Your task to perform on an android device: turn on the 12-hour format for clock Image 0: 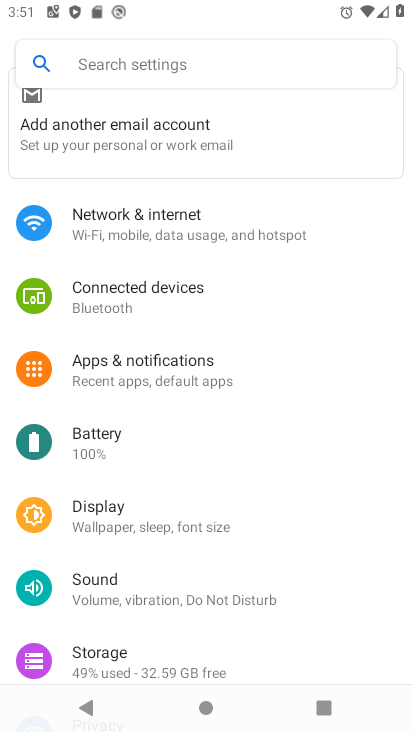
Step 0: press home button
Your task to perform on an android device: turn on the 12-hour format for clock Image 1: 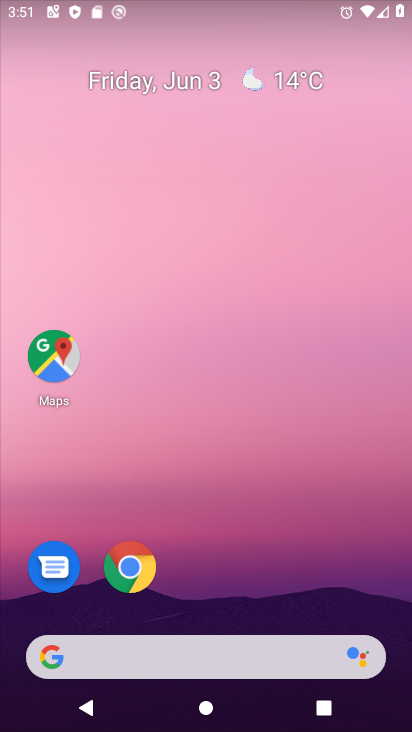
Step 1: drag from (260, 689) to (268, 197)
Your task to perform on an android device: turn on the 12-hour format for clock Image 2: 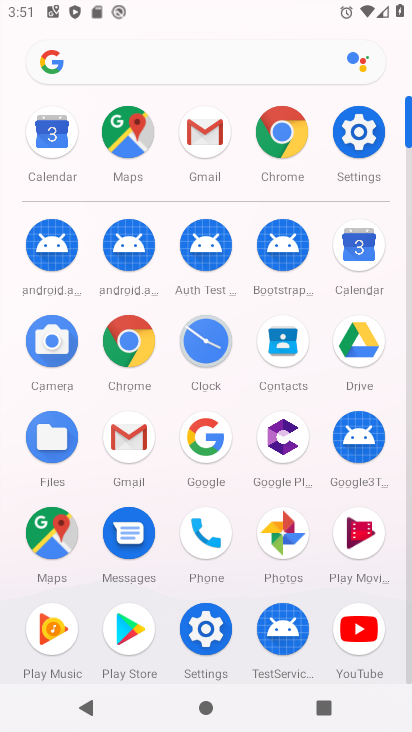
Step 2: click (208, 352)
Your task to perform on an android device: turn on the 12-hour format for clock Image 3: 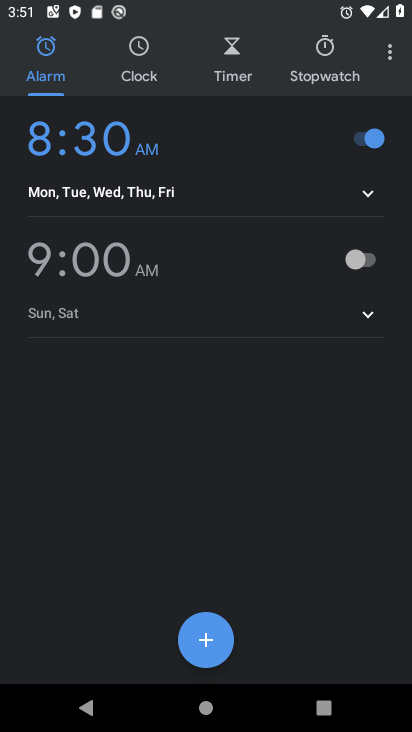
Step 3: click (381, 56)
Your task to perform on an android device: turn on the 12-hour format for clock Image 4: 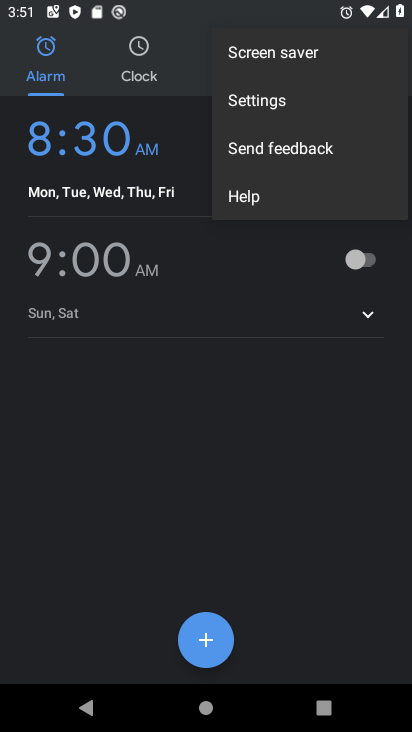
Step 4: click (270, 117)
Your task to perform on an android device: turn on the 12-hour format for clock Image 5: 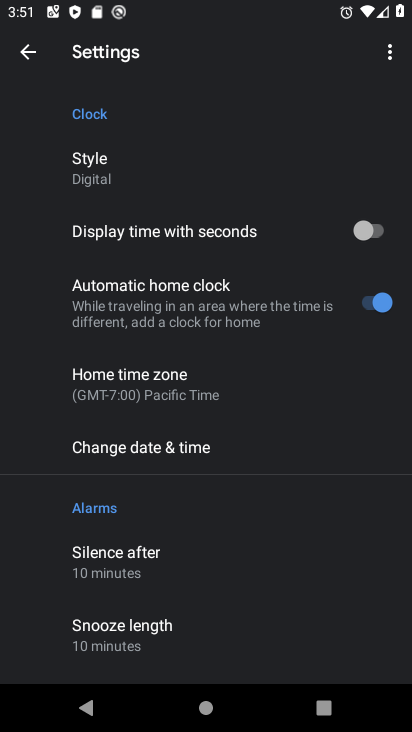
Step 5: click (197, 447)
Your task to perform on an android device: turn on the 12-hour format for clock Image 6: 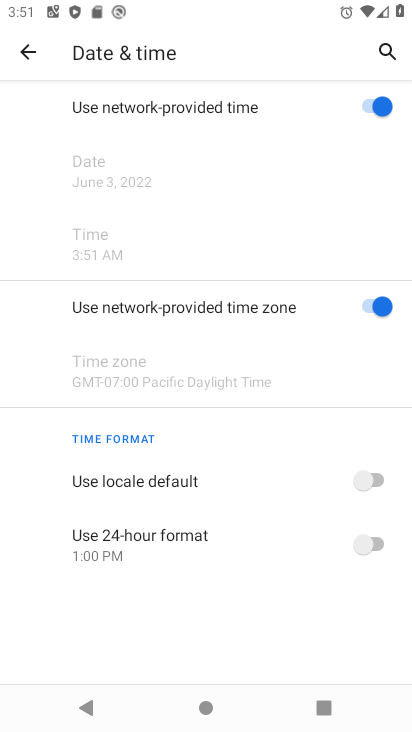
Step 6: click (380, 537)
Your task to perform on an android device: turn on the 12-hour format for clock Image 7: 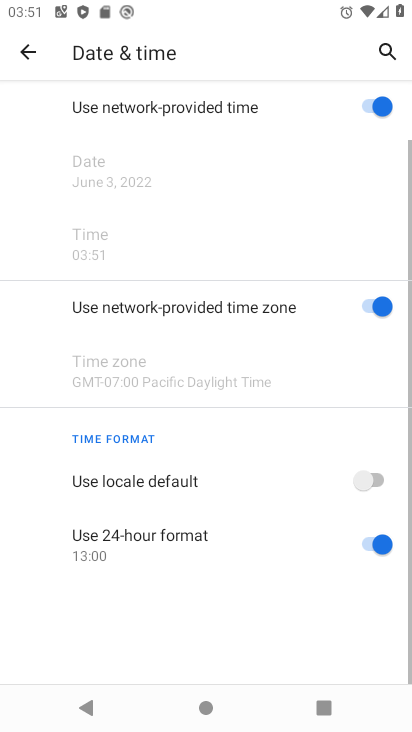
Step 7: click (377, 540)
Your task to perform on an android device: turn on the 12-hour format for clock Image 8: 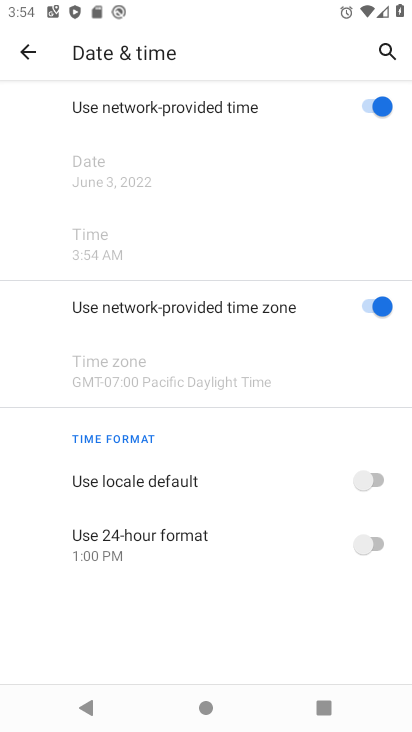
Step 8: task complete